Your task to perform on an android device: Clear the cart on bestbuy.com. Add macbook to the cart on bestbuy.com Image 0: 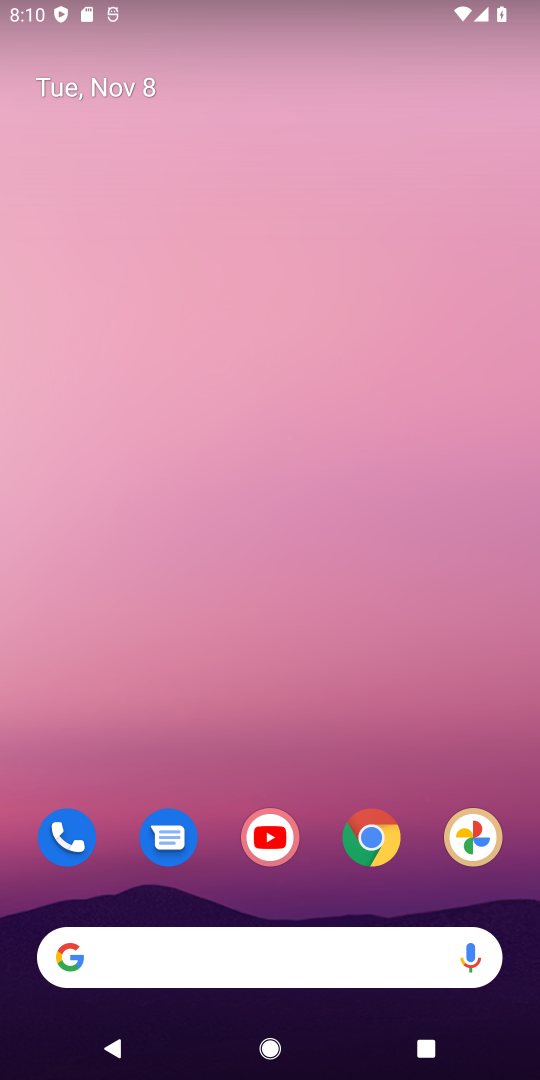
Step 0: click (364, 836)
Your task to perform on an android device: Clear the cart on bestbuy.com. Add macbook to the cart on bestbuy.com Image 1: 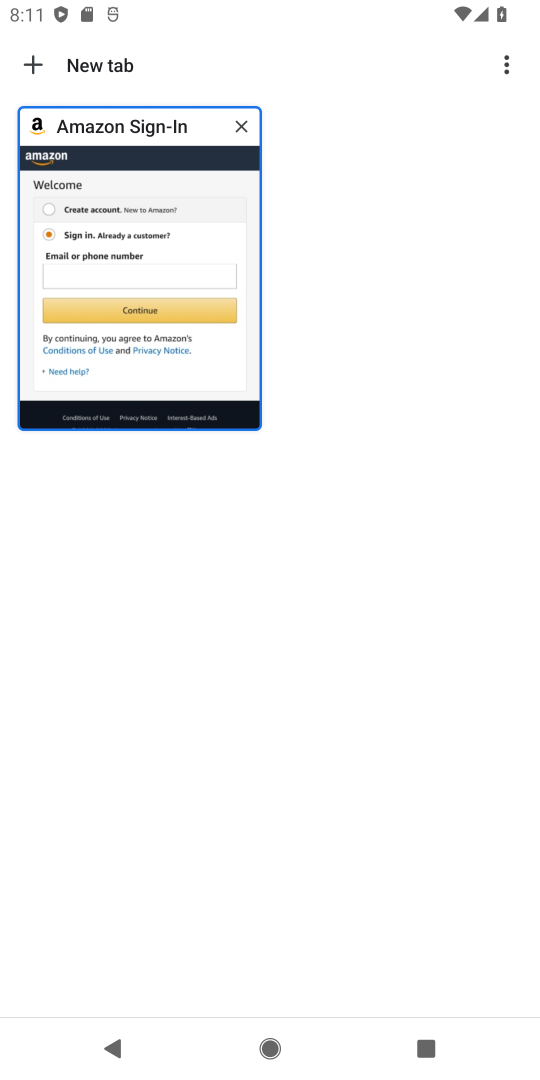
Step 1: click (30, 69)
Your task to perform on an android device: Clear the cart on bestbuy.com. Add macbook to the cart on bestbuy.com Image 2: 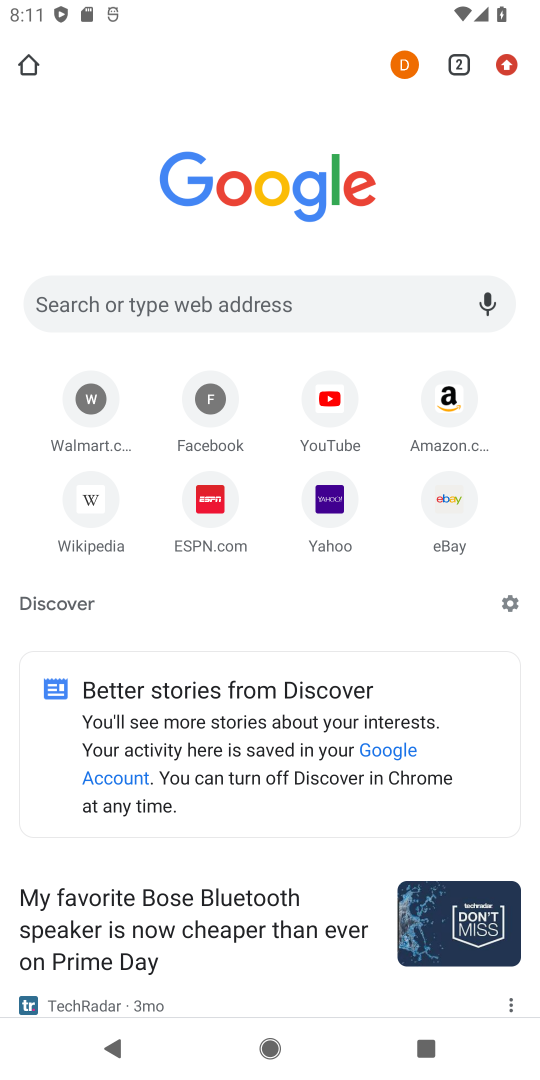
Step 2: click (312, 302)
Your task to perform on an android device: Clear the cart on bestbuy.com. Add macbook to the cart on bestbuy.com Image 3: 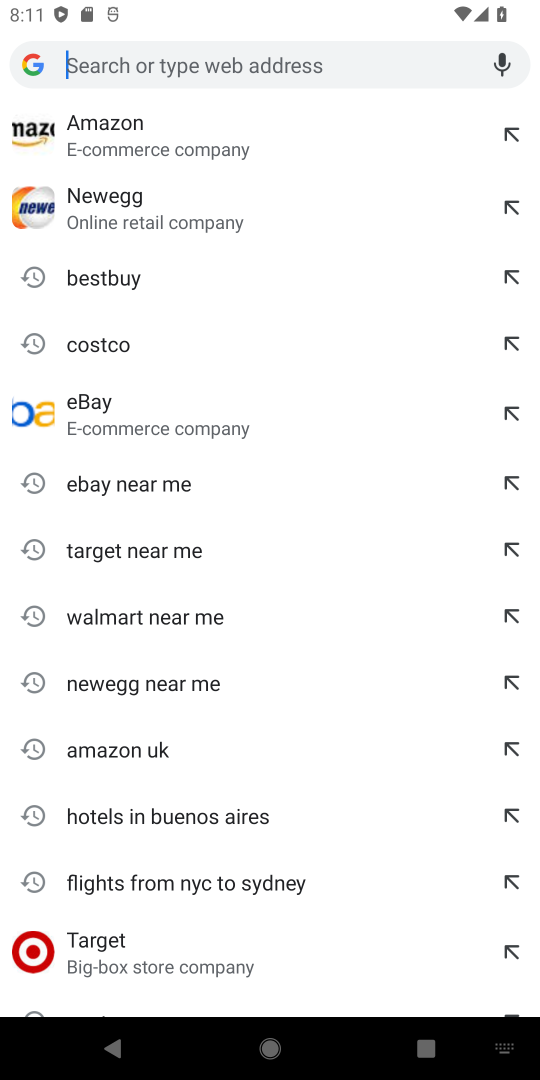
Step 3: click (74, 273)
Your task to perform on an android device: Clear the cart on bestbuy.com. Add macbook to the cart on bestbuy.com Image 4: 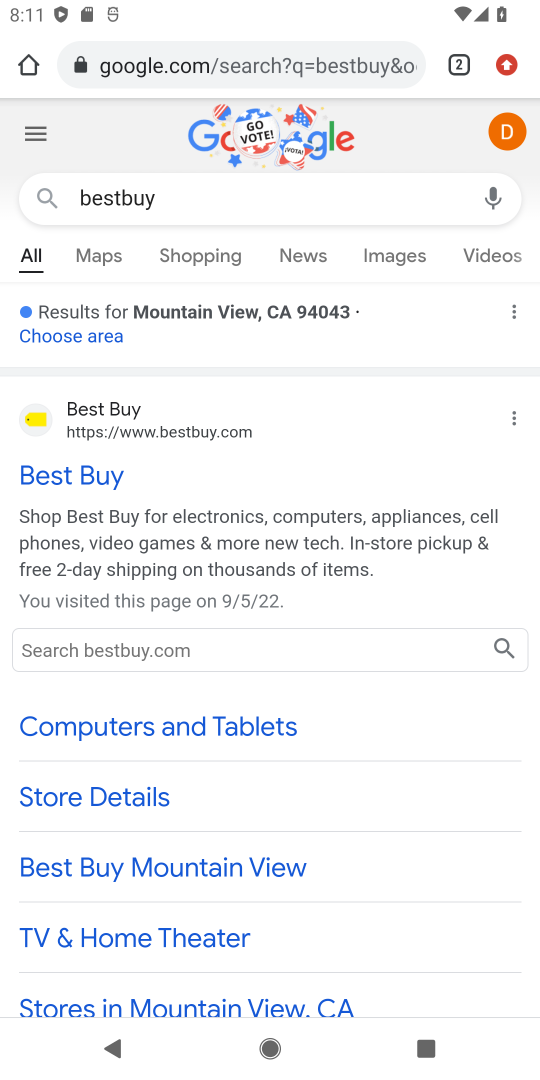
Step 4: click (127, 640)
Your task to perform on an android device: Clear the cart on bestbuy.com. Add macbook to the cart on bestbuy.com Image 5: 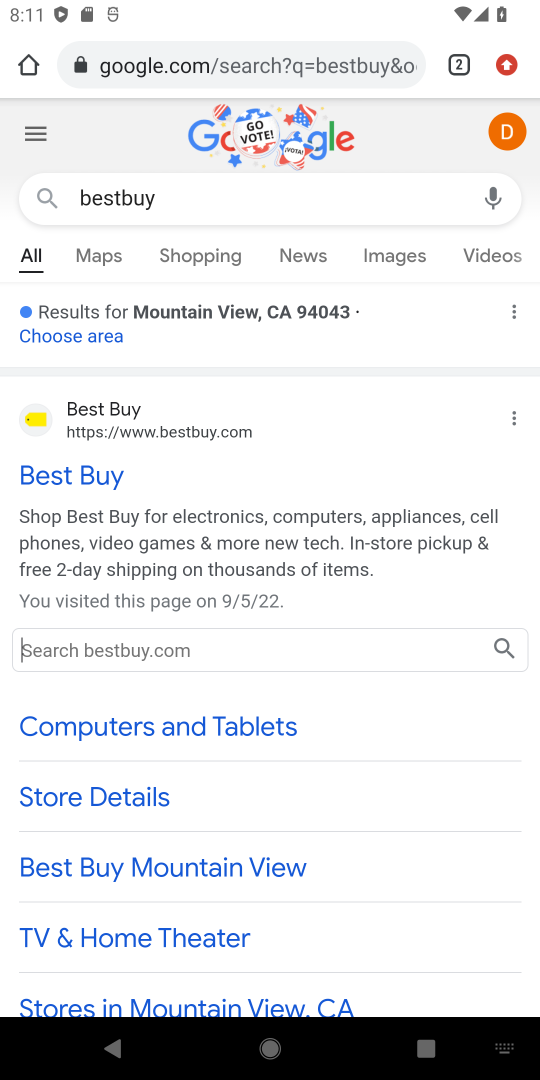
Step 5: type "macbook"
Your task to perform on an android device: Clear the cart on bestbuy.com. Add macbook to the cart on bestbuy.com Image 6: 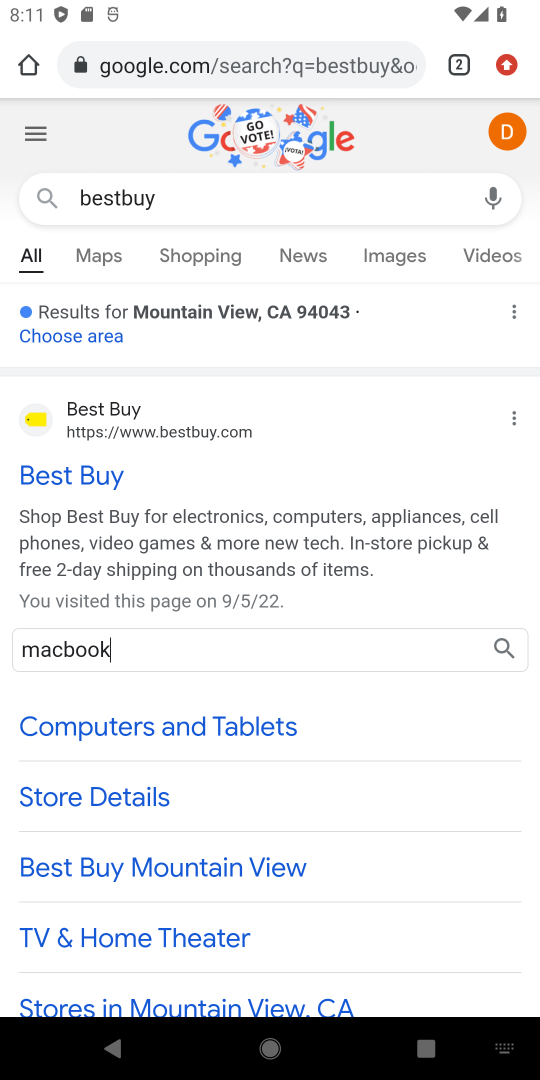
Step 6: click (504, 650)
Your task to perform on an android device: Clear the cart on bestbuy.com. Add macbook to the cart on bestbuy.com Image 7: 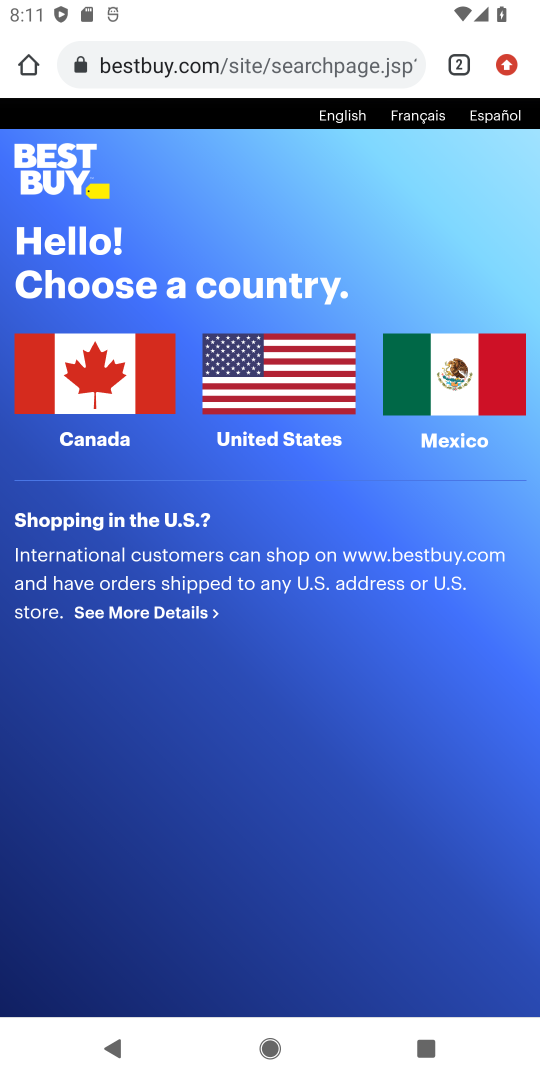
Step 7: click (280, 399)
Your task to perform on an android device: Clear the cart on bestbuy.com. Add macbook to the cart on bestbuy.com Image 8: 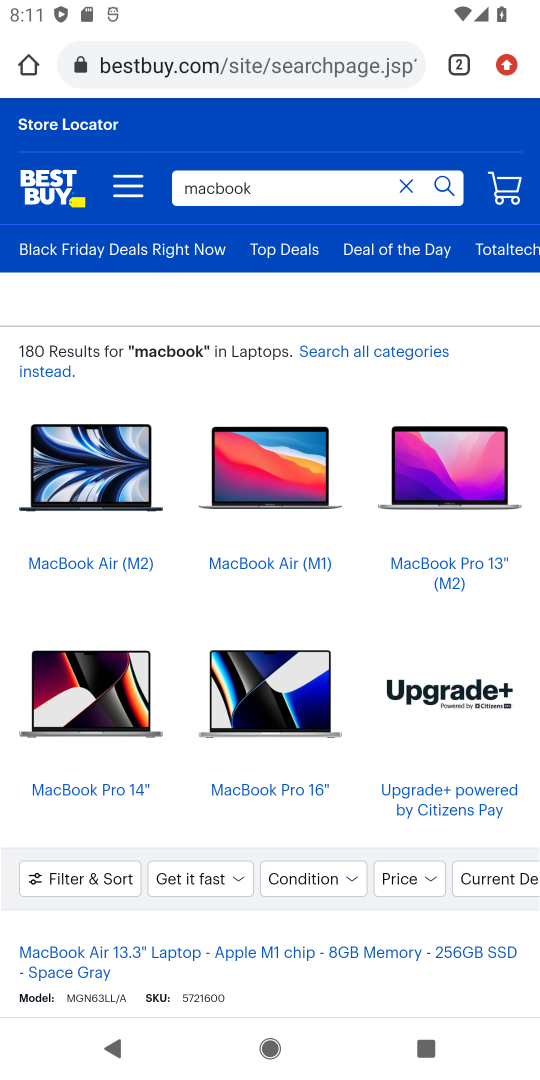
Step 8: drag from (206, 979) to (321, 378)
Your task to perform on an android device: Clear the cart on bestbuy.com. Add macbook to the cart on bestbuy.com Image 9: 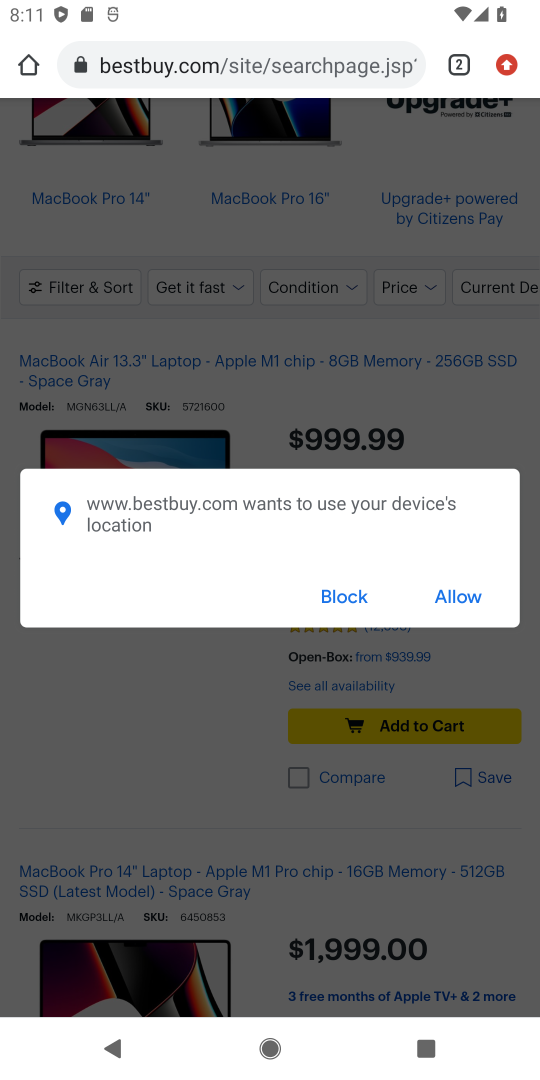
Step 9: click (346, 595)
Your task to perform on an android device: Clear the cart on bestbuy.com. Add macbook to the cart on bestbuy.com Image 10: 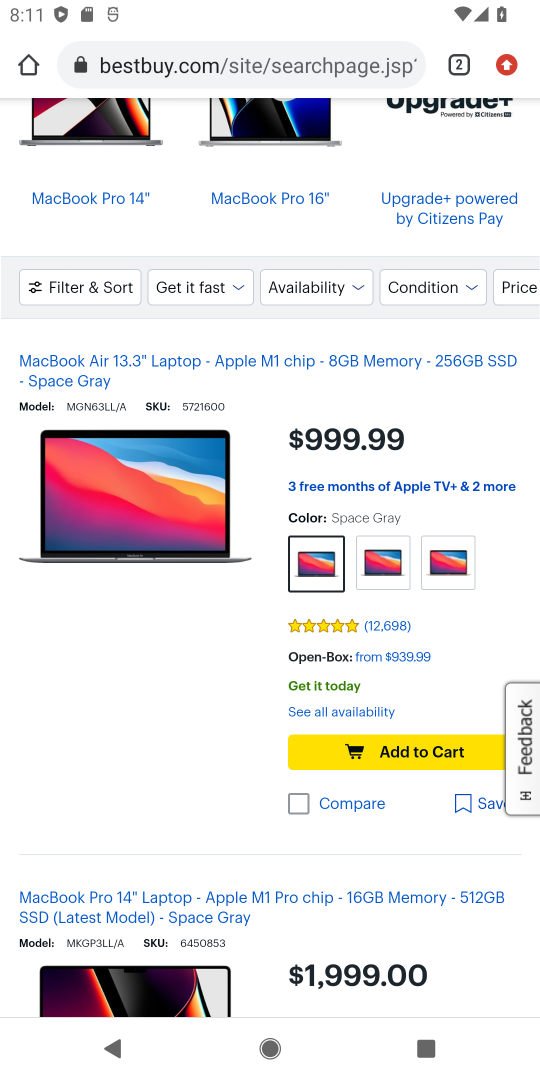
Step 10: click (406, 746)
Your task to perform on an android device: Clear the cart on bestbuy.com. Add macbook to the cart on bestbuy.com Image 11: 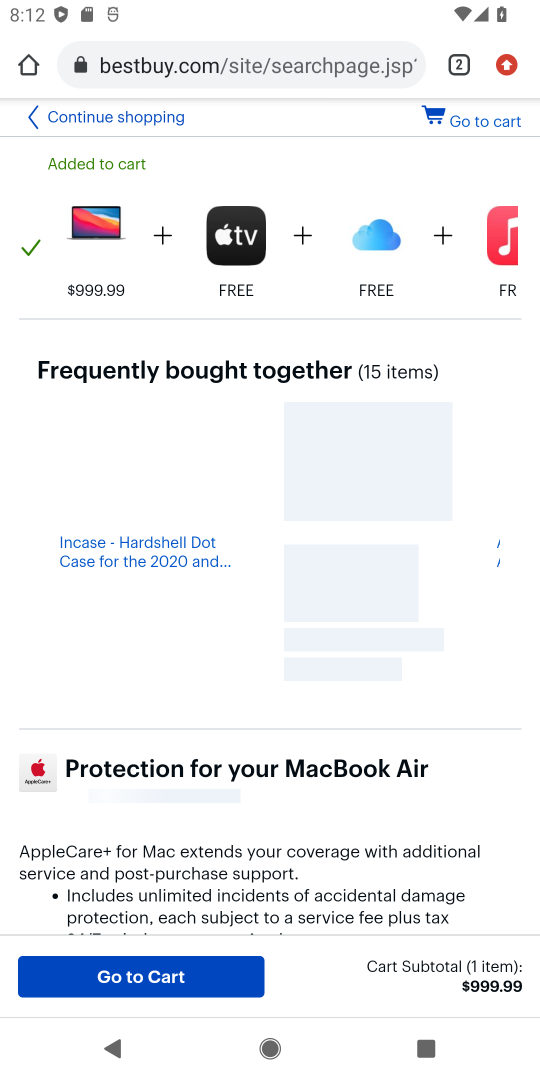
Step 11: task complete